Your task to perform on an android device: turn notification dots off Image 0: 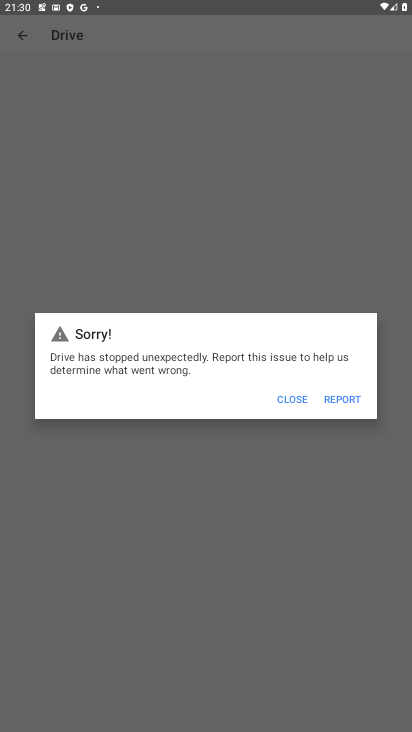
Step 0: press home button
Your task to perform on an android device: turn notification dots off Image 1: 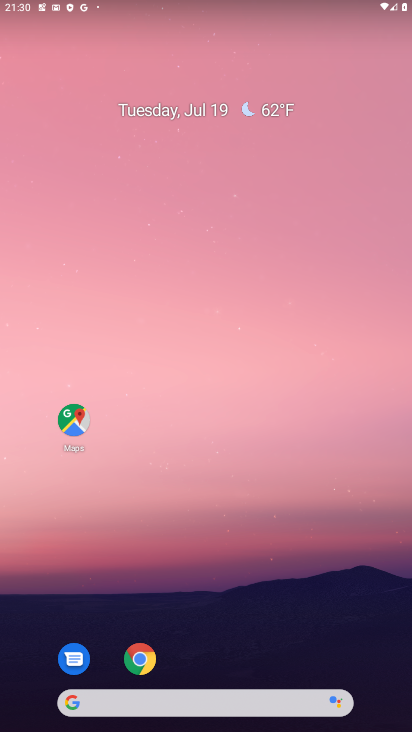
Step 1: drag from (319, 676) to (311, 19)
Your task to perform on an android device: turn notification dots off Image 2: 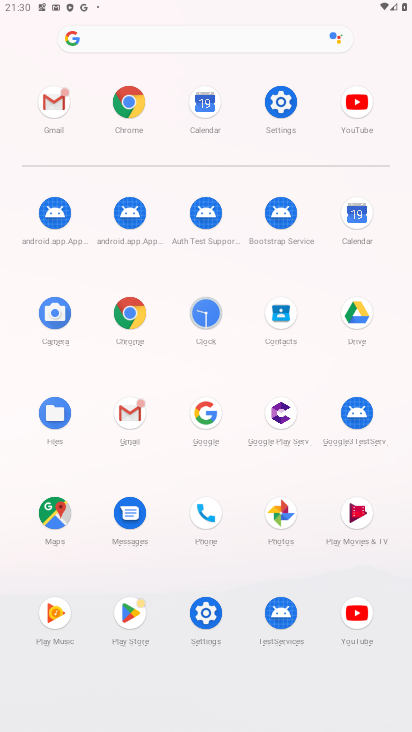
Step 2: click (211, 628)
Your task to perform on an android device: turn notification dots off Image 3: 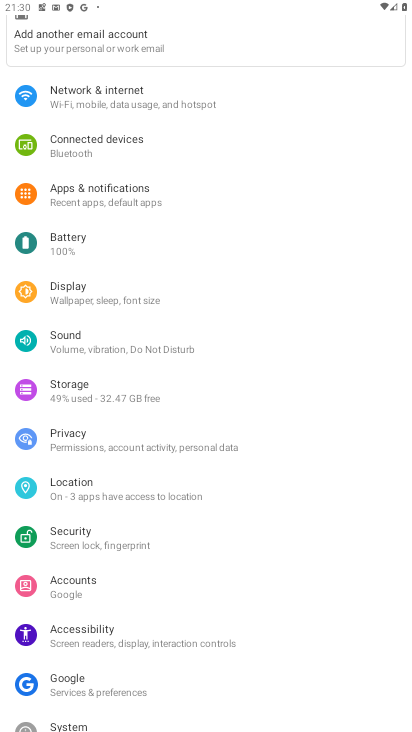
Step 3: click (64, 209)
Your task to perform on an android device: turn notification dots off Image 4: 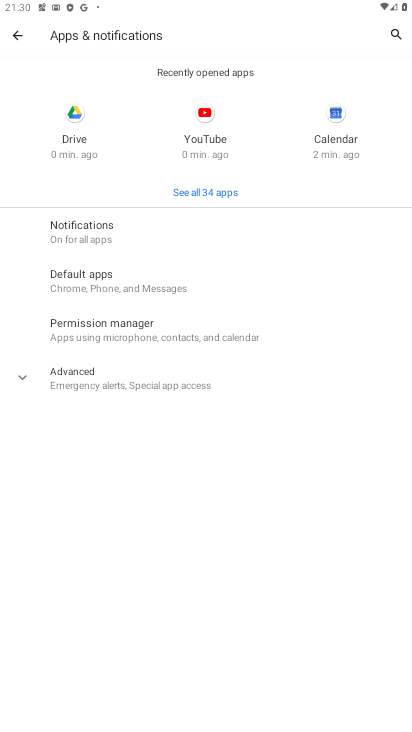
Step 4: click (134, 232)
Your task to perform on an android device: turn notification dots off Image 5: 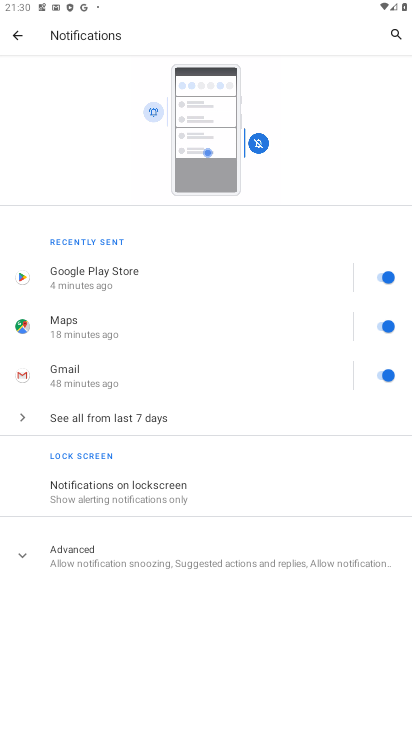
Step 5: click (152, 564)
Your task to perform on an android device: turn notification dots off Image 6: 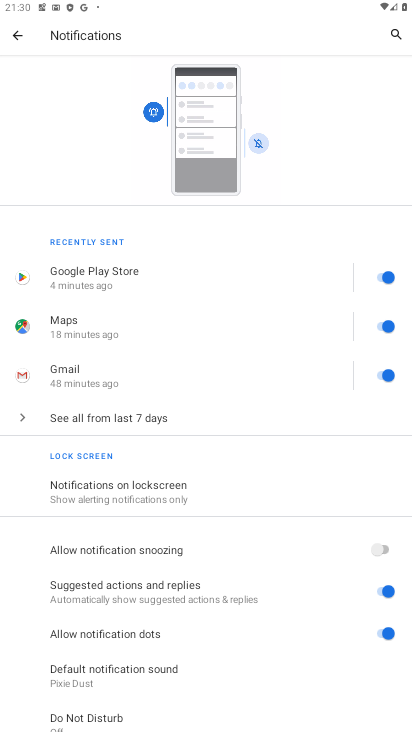
Step 6: click (155, 633)
Your task to perform on an android device: turn notification dots off Image 7: 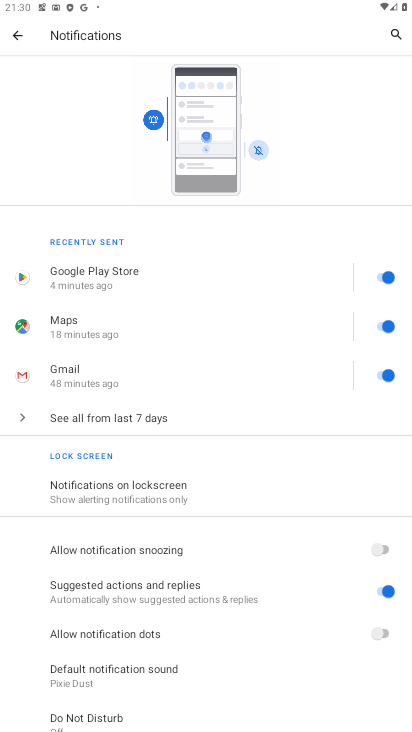
Step 7: task complete